Your task to perform on an android device: change notifications settings Image 0: 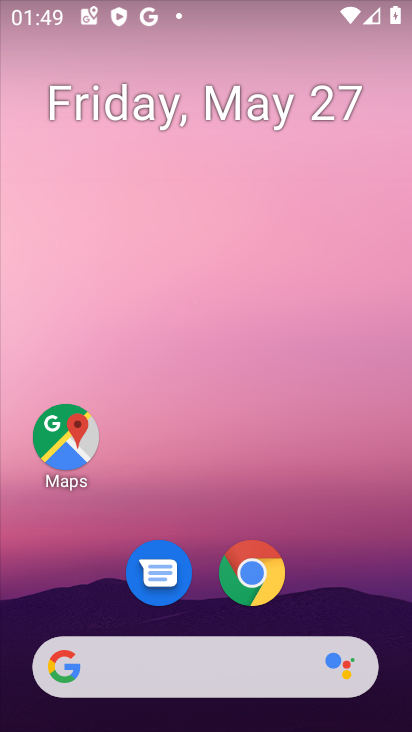
Step 0: drag from (198, 609) to (240, 552)
Your task to perform on an android device: change notifications settings Image 1: 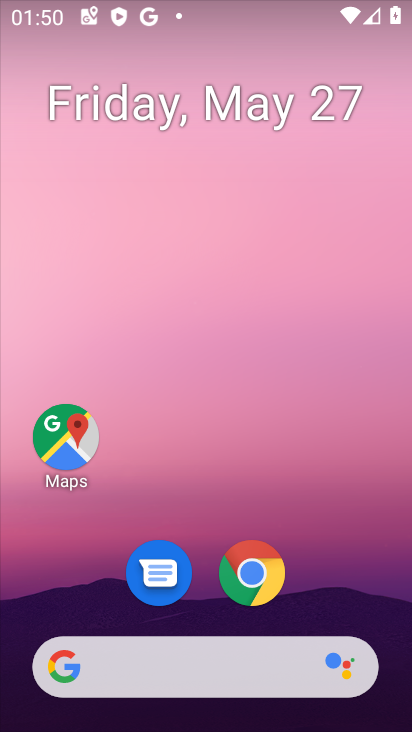
Step 1: drag from (256, 626) to (210, 74)
Your task to perform on an android device: change notifications settings Image 2: 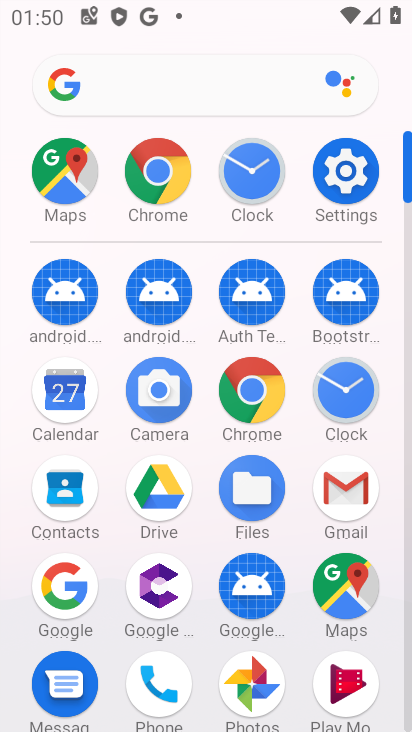
Step 2: click (339, 155)
Your task to perform on an android device: change notifications settings Image 3: 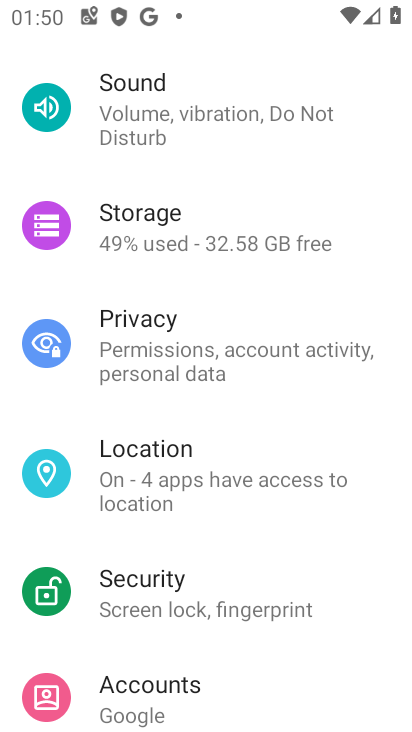
Step 3: drag from (189, 234) to (165, 654)
Your task to perform on an android device: change notifications settings Image 4: 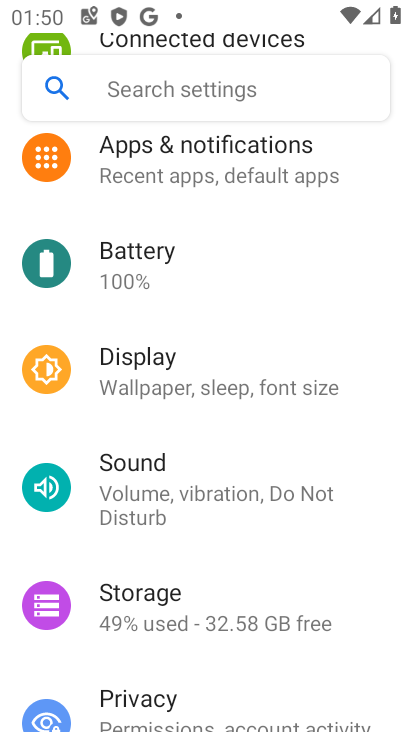
Step 4: click (228, 173)
Your task to perform on an android device: change notifications settings Image 5: 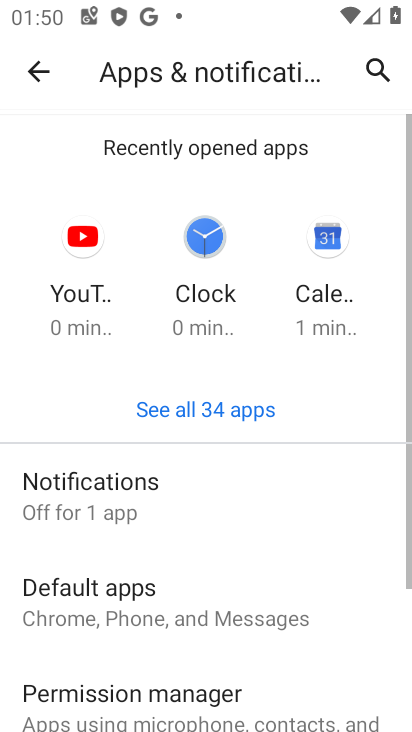
Step 5: click (106, 497)
Your task to perform on an android device: change notifications settings Image 6: 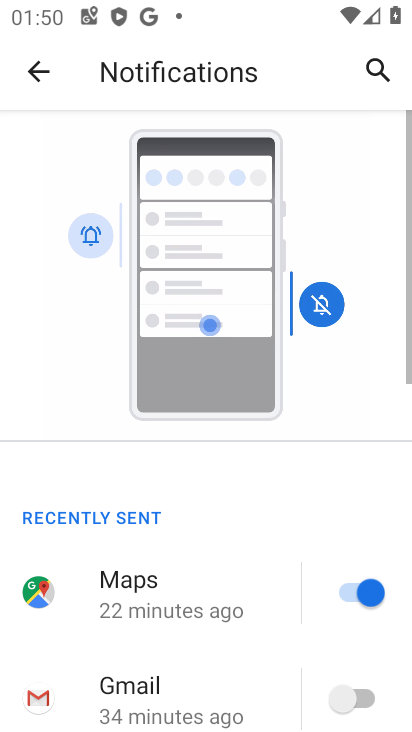
Step 6: drag from (135, 623) to (97, 106)
Your task to perform on an android device: change notifications settings Image 7: 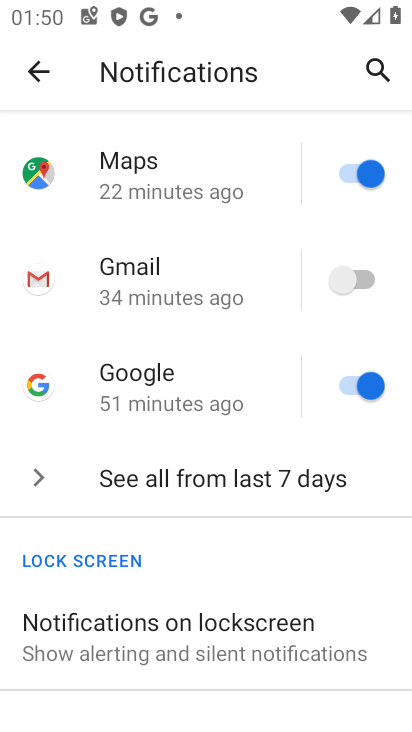
Step 7: click (149, 488)
Your task to perform on an android device: change notifications settings Image 8: 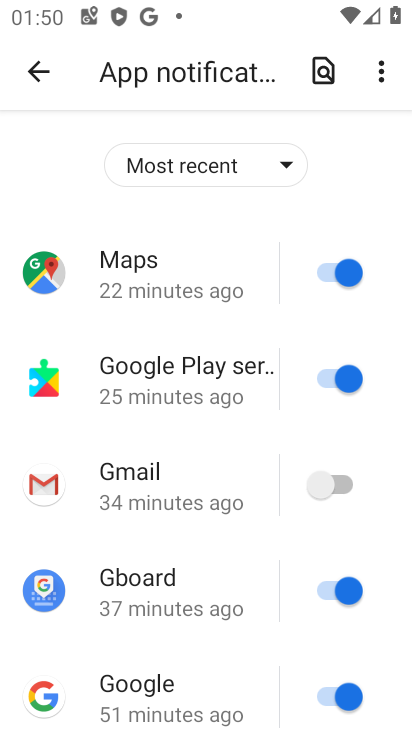
Step 8: click (196, 154)
Your task to perform on an android device: change notifications settings Image 9: 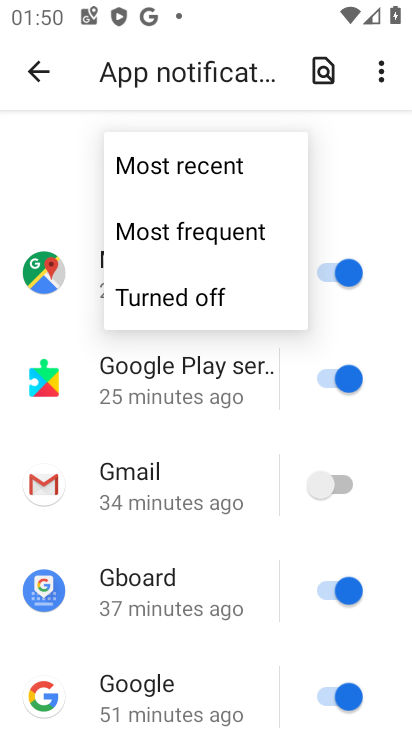
Step 9: click (185, 308)
Your task to perform on an android device: change notifications settings Image 10: 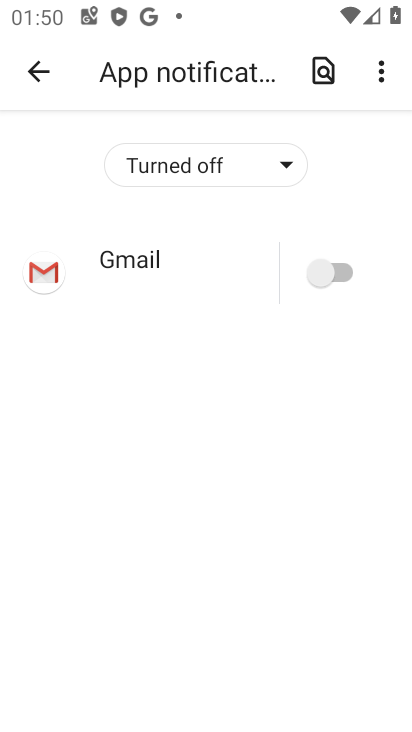
Step 10: task complete